Your task to perform on an android device: change keyboard looks Image 0: 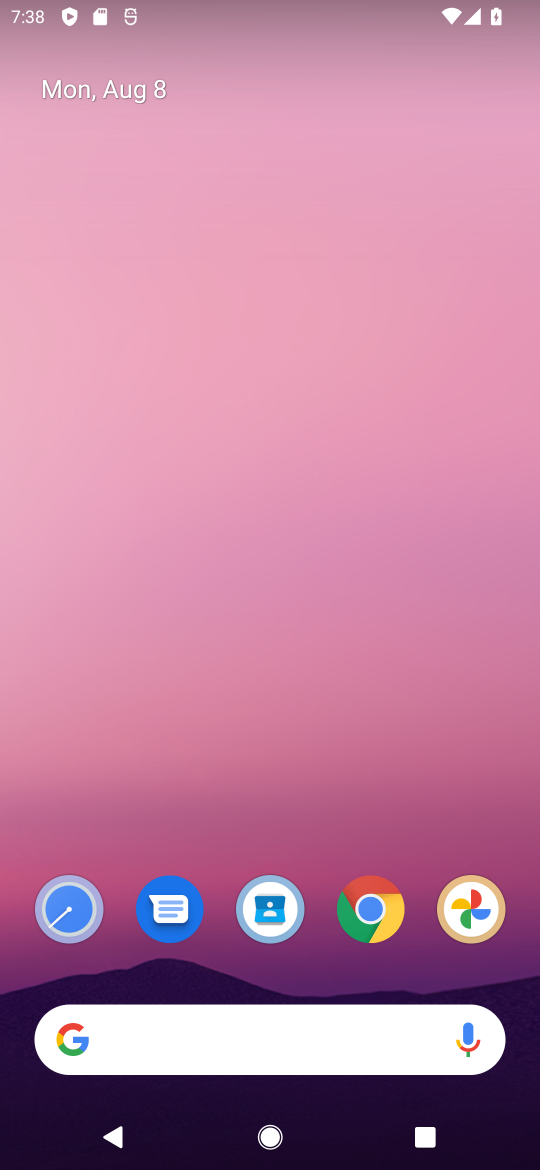
Step 0: drag from (296, 684) to (291, 365)
Your task to perform on an android device: change keyboard looks Image 1: 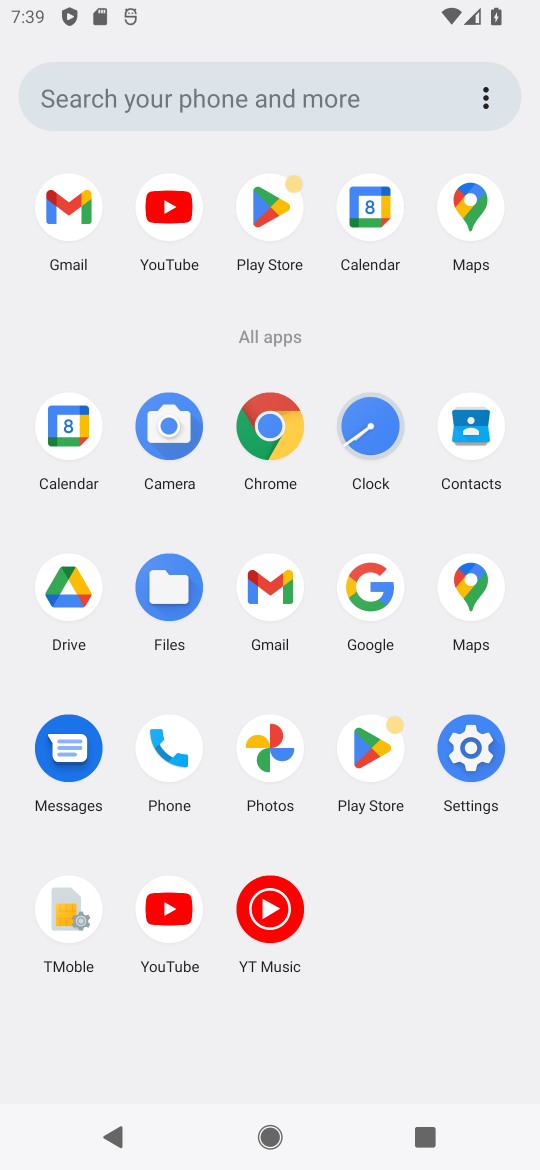
Step 1: click (462, 765)
Your task to perform on an android device: change keyboard looks Image 2: 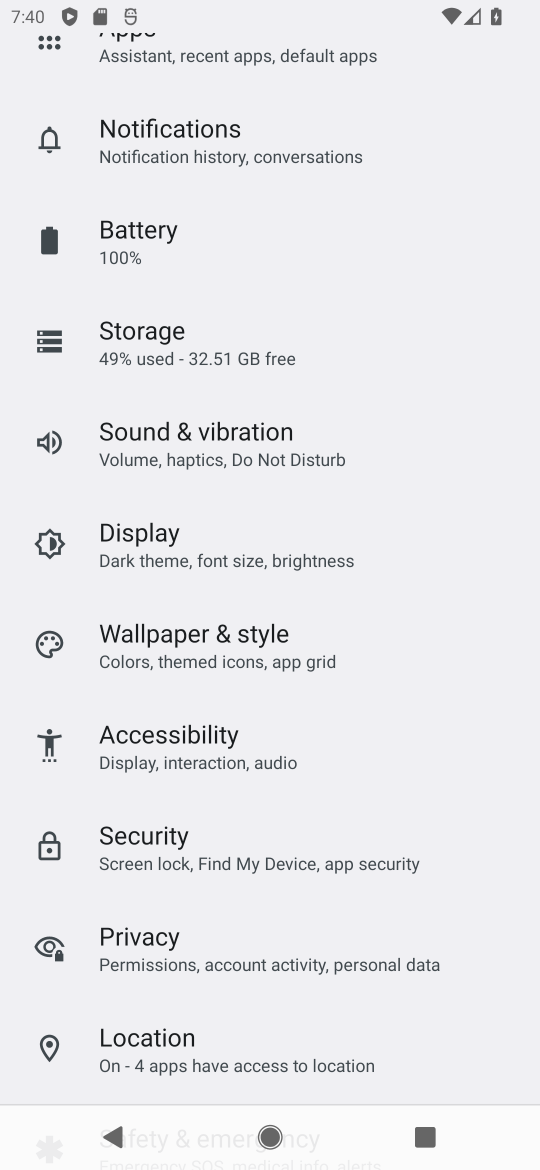
Step 2: drag from (194, 936) to (261, 449)
Your task to perform on an android device: change keyboard looks Image 3: 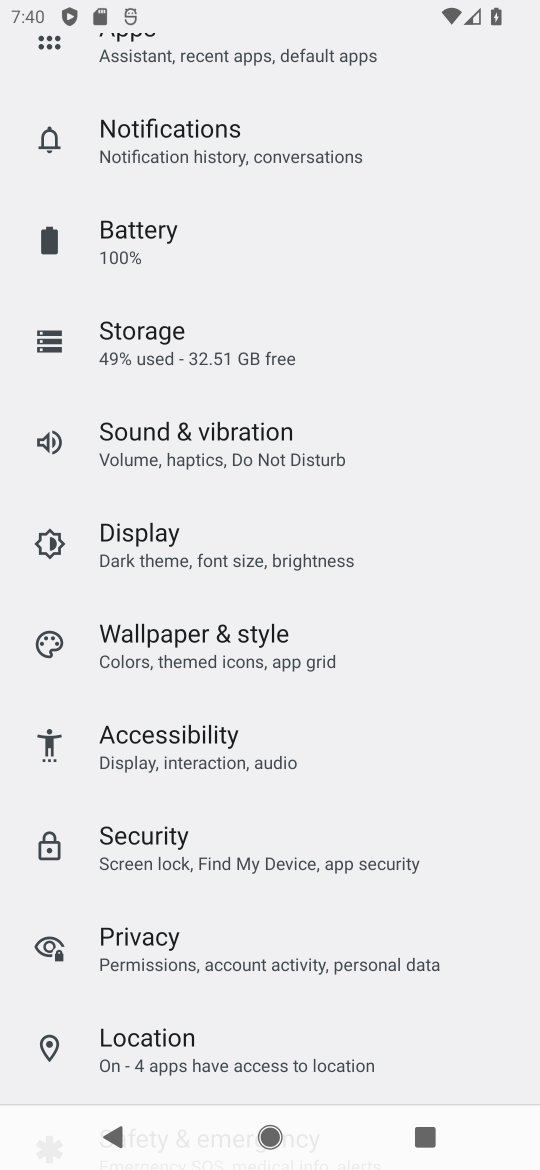
Step 3: drag from (254, 961) to (247, 393)
Your task to perform on an android device: change keyboard looks Image 4: 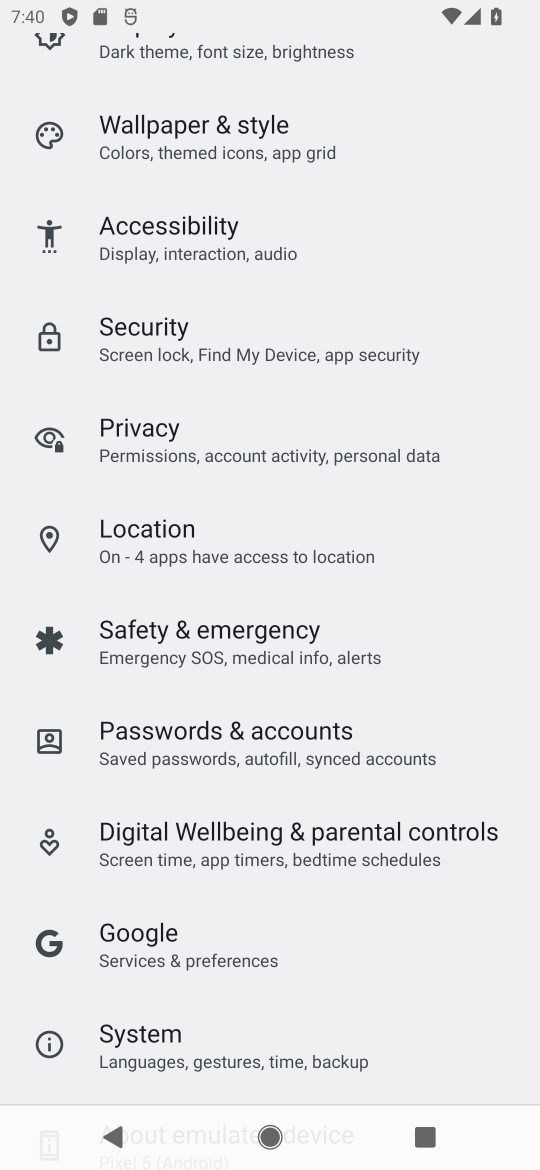
Step 4: click (227, 1057)
Your task to perform on an android device: change keyboard looks Image 5: 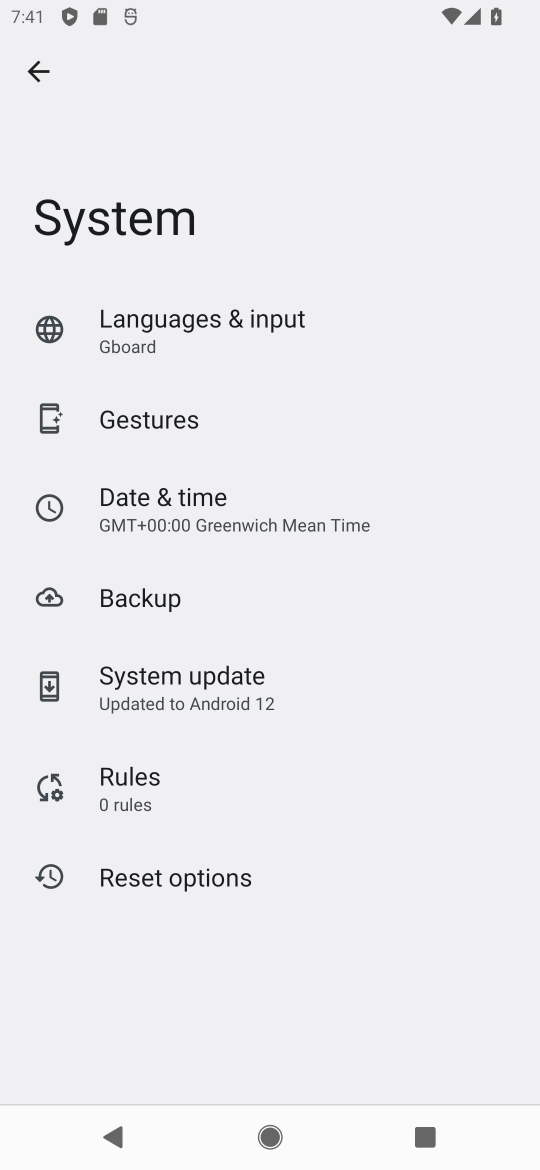
Step 5: click (202, 336)
Your task to perform on an android device: change keyboard looks Image 6: 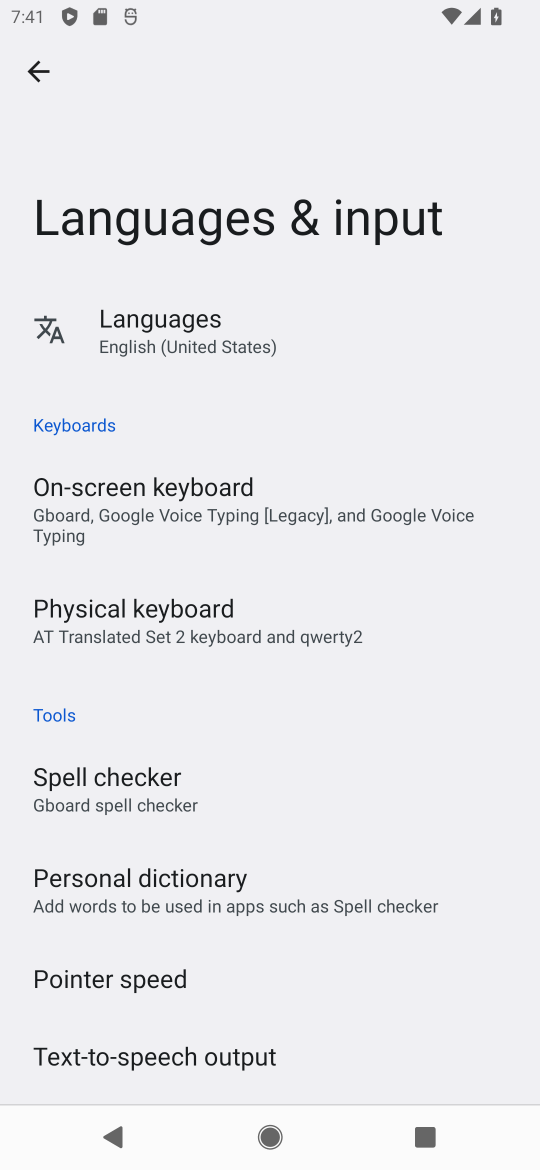
Step 6: click (224, 614)
Your task to perform on an android device: change keyboard looks Image 7: 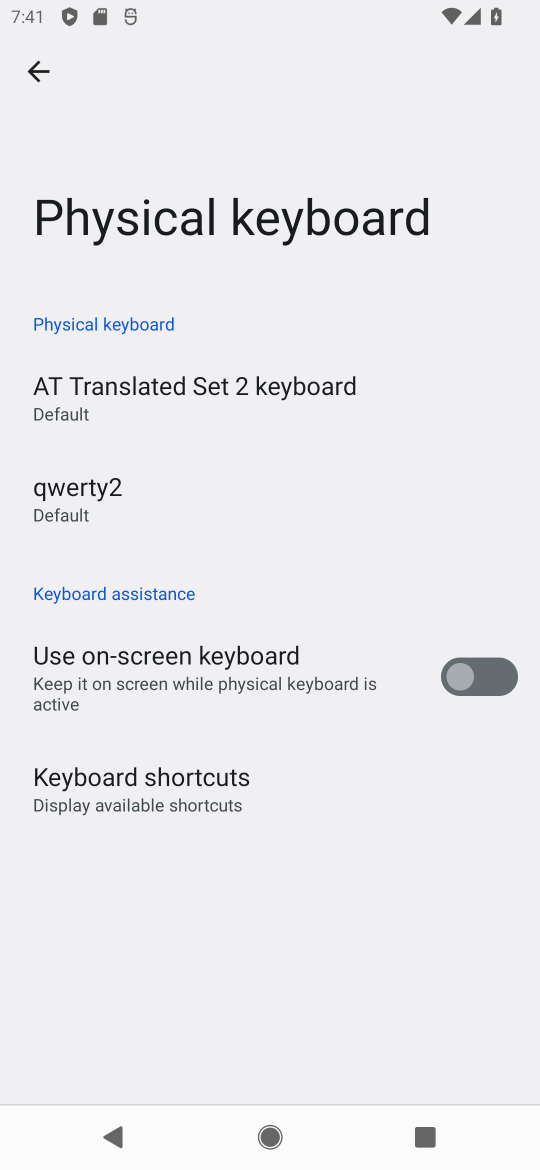
Step 7: task complete